Your task to perform on an android device: Go to CNN.com Image 0: 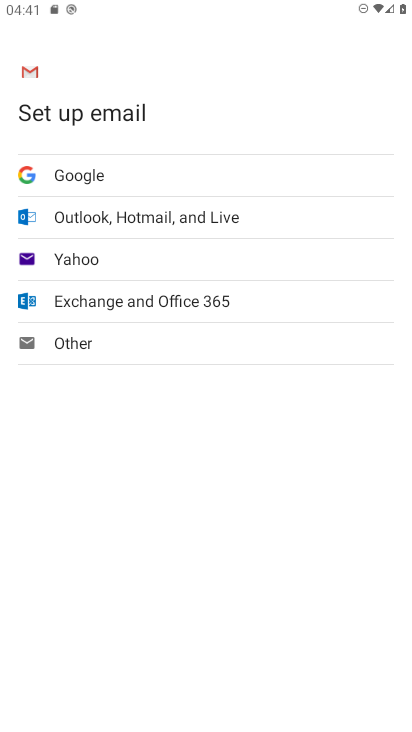
Step 0: press home button
Your task to perform on an android device: Go to CNN.com Image 1: 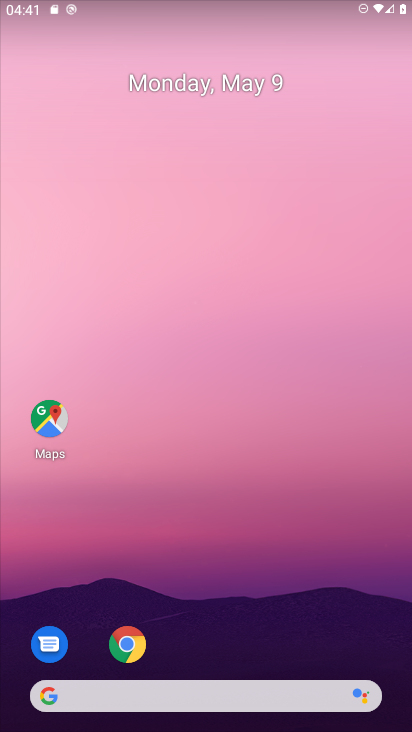
Step 1: drag from (261, 569) to (288, 165)
Your task to perform on an android device: Go to CNN.com Image 2: 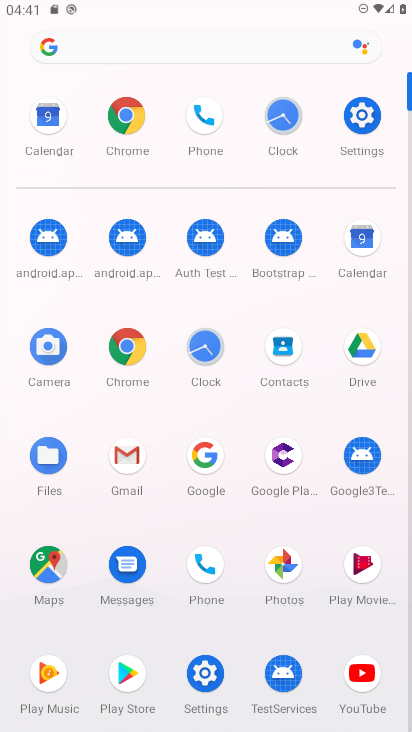
Step 2: click (118, 132)
Your task to perform on an android device: Go to CNN.com Image 3: 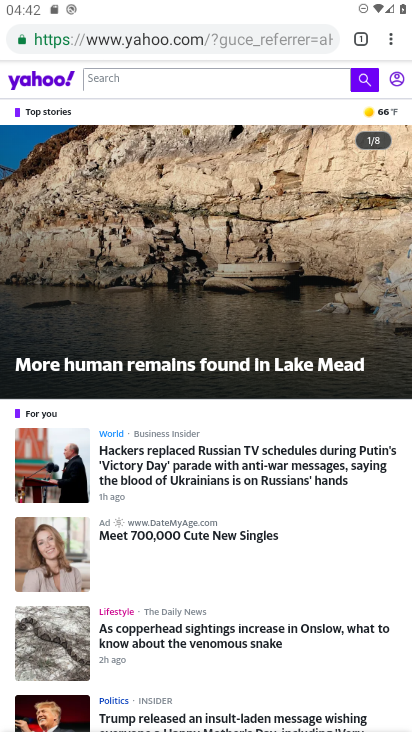
Step 3: click (145, 41)
Your task to perform on an android device: Go to CNN.com Image 4: 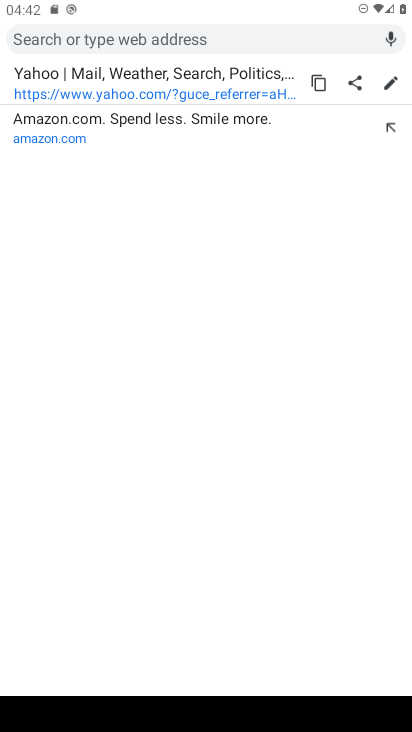
Step 4: type "CNN.com"
Your task to perform on an android device: Go to CNN.com Image 5: 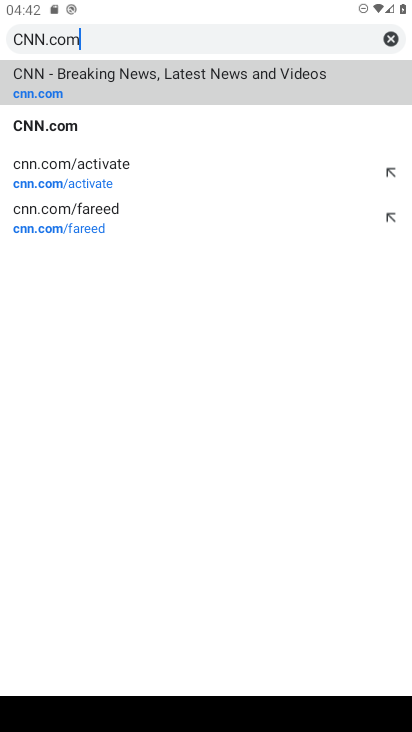
Step 5: type ""
Your task to perform on an android device: Go to CNN.com Image 6: 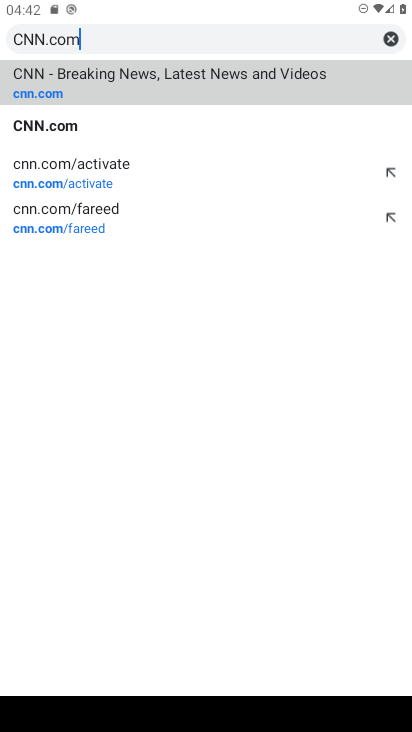
Step 6: click (67, 128)
Your task to perform on an android device: Go to CNN.com Image 7: 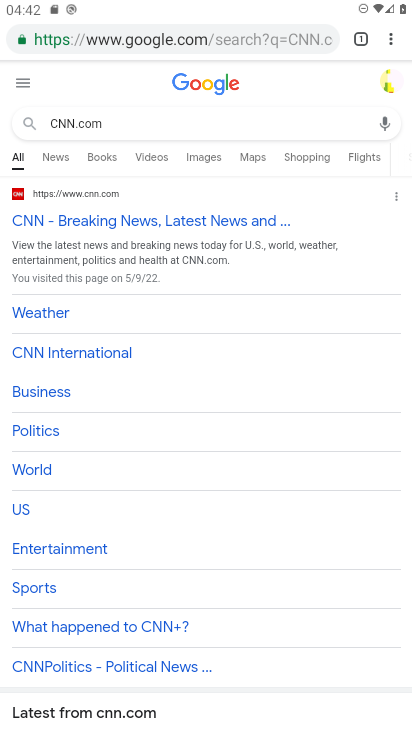
Step 7: click (115, 227)
Your task to perform on an android device: Go to CNN.com Image 8: 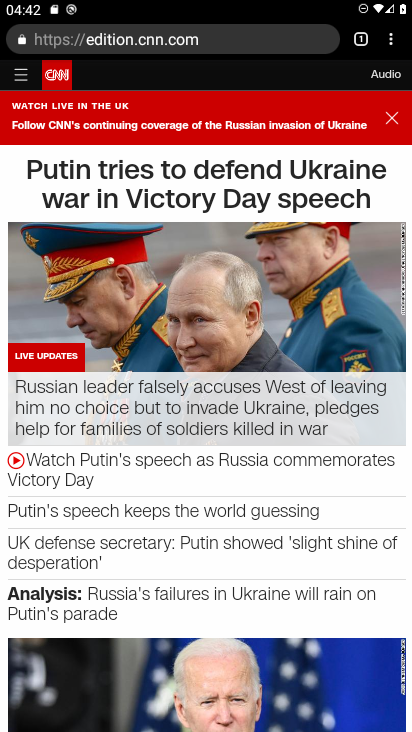
Step 8: task complete